Your task to perform on an android device: manage bookmarks in the chrome app Image 0: 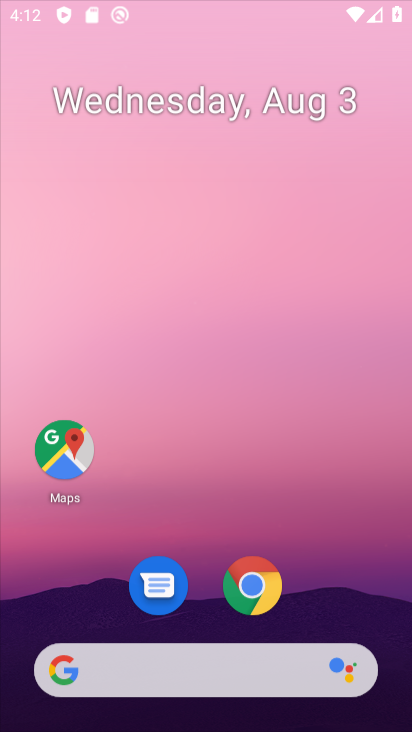
Step 0: click (220, 32)
Your task to perform on an android device: manage bookmarks in the chrome app Image 1: 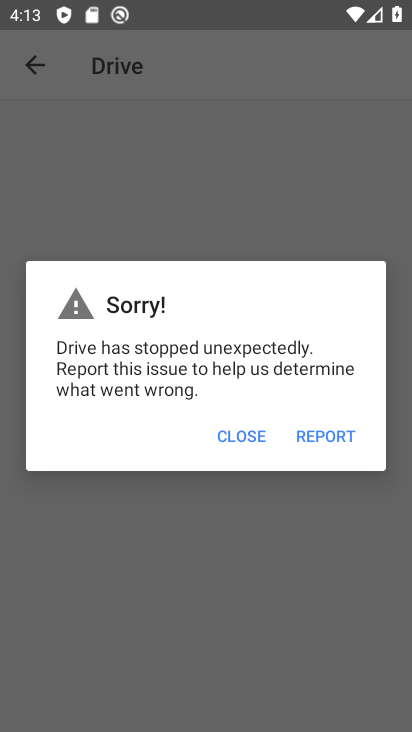
Step 1: press home button
Your task to perform on an android device: manage bookmarks in the chrome app Image 2: 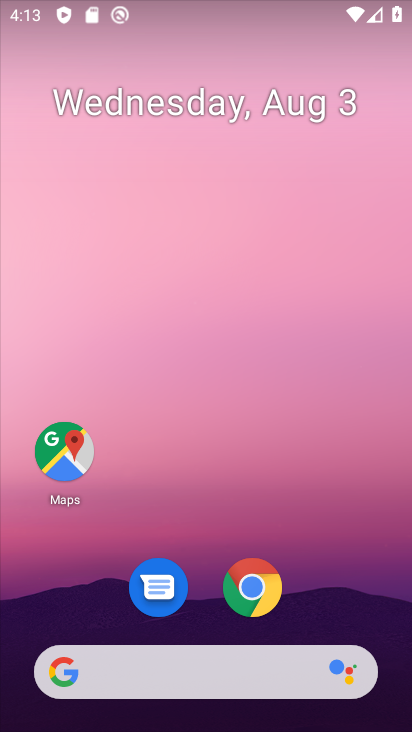
Step 2: click (258, 579)
Your task to perform on an android device: manage bookmarks in the chrome app Image 3: 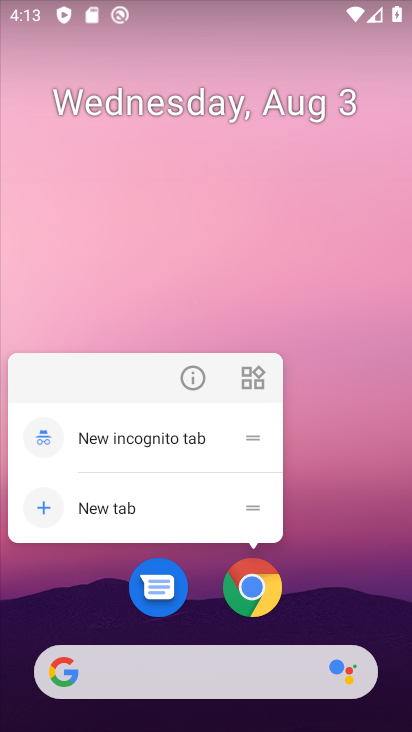
Step 3: click (239, 601)
Your task to perform on an android device: manage bookmarks in the chrome app Image 4: 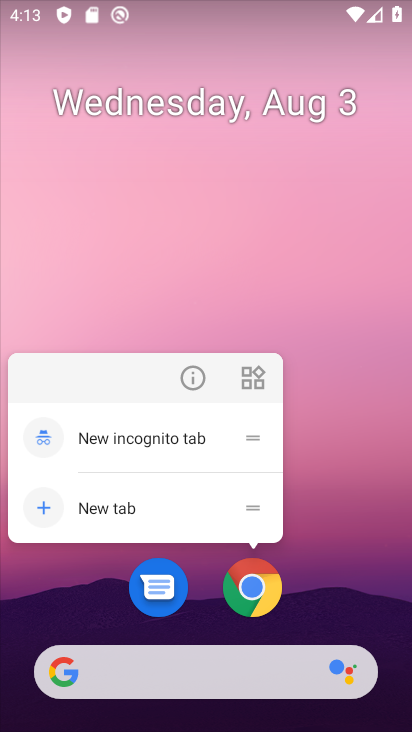
Step 4: click (248, 591)
Your task to perform on an android device: manage bookmarks in the chrome app Image 5: 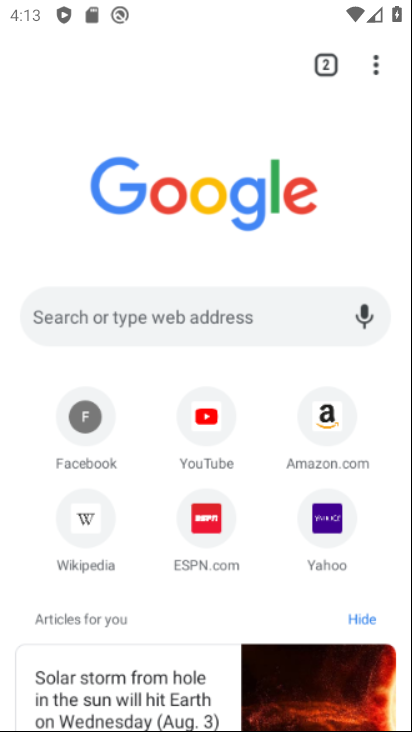
Step 5: click (373, 69)
Your task to perform on an android device: manage bookmarks in the chrome app Image 6: 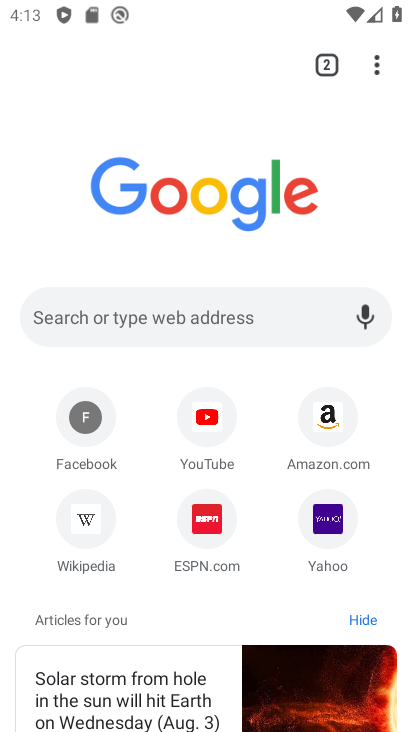
Step 6: click (378, 58)
Your task to perform on an android device: manage bookmarks in the chrome app Image 7: 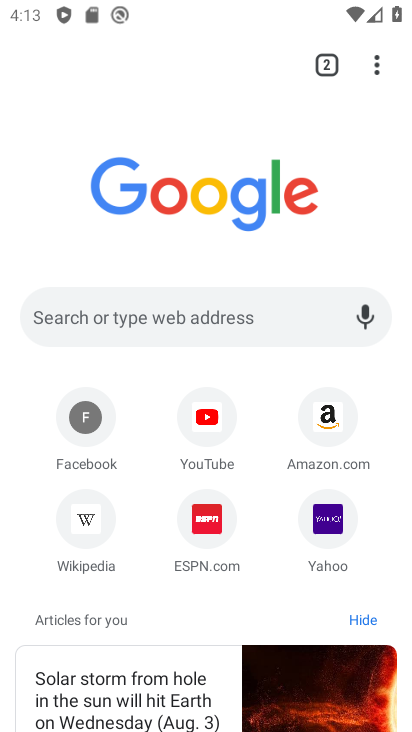
Step 7: click (381, 65)
Your task to perform on an android device: manage bookmarks in the chrome app Image 8: 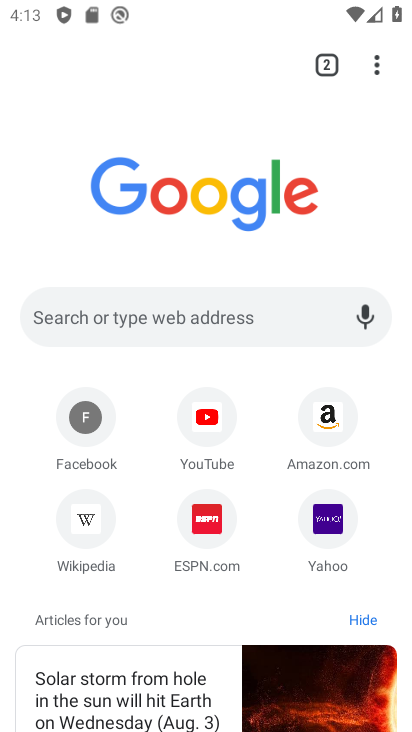
Step 8: click (390, 56)
Your task to perform on an android device: manage bookmarks in the chrome app Image 9: 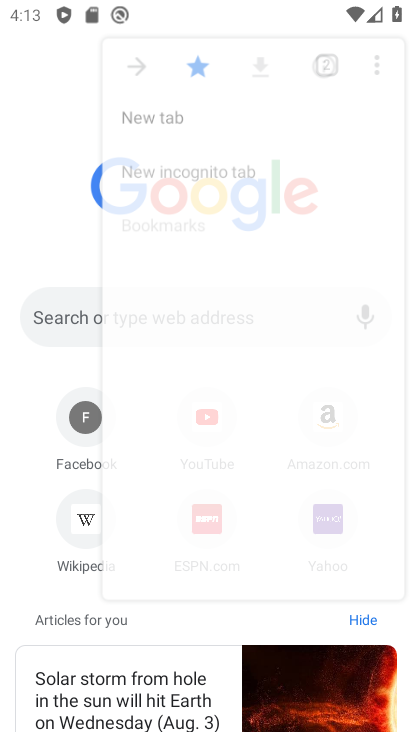
Step 9: click (377, 66)
Your task to perform on an android device: manage bookmarks in the chrome app Image 10: 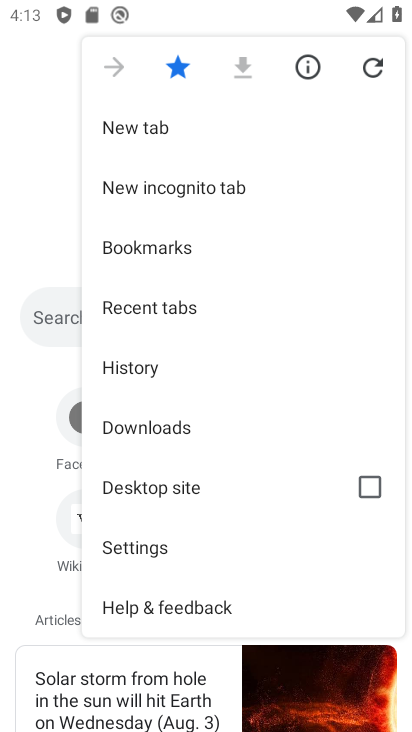
Step 10: click (146, 247)
Your task to perform on an android device: manage bookmarks in the chrome app Image 11: 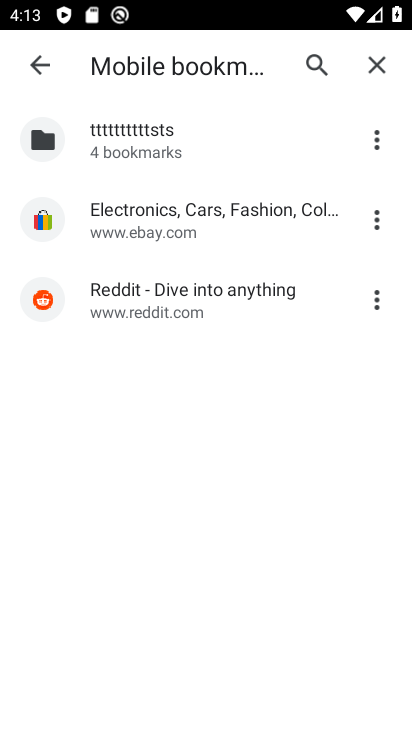
Step 11: task complete